Your task to perform on an android device: Open Chrome and go to settings Image 0: 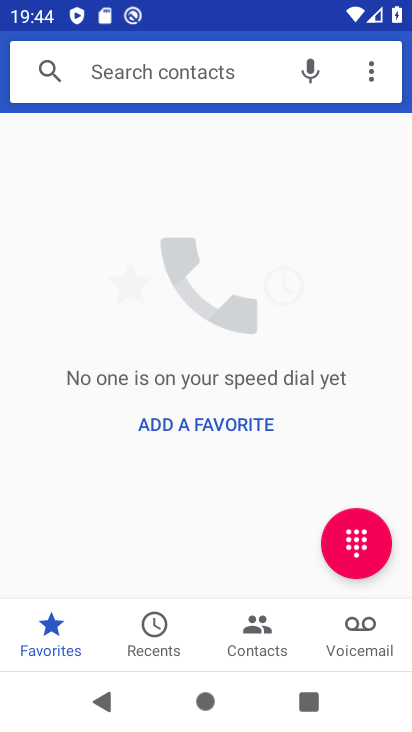
Step 0: press home button
Your task to perform on an android device: Open Chrome and go to settings Image 1: 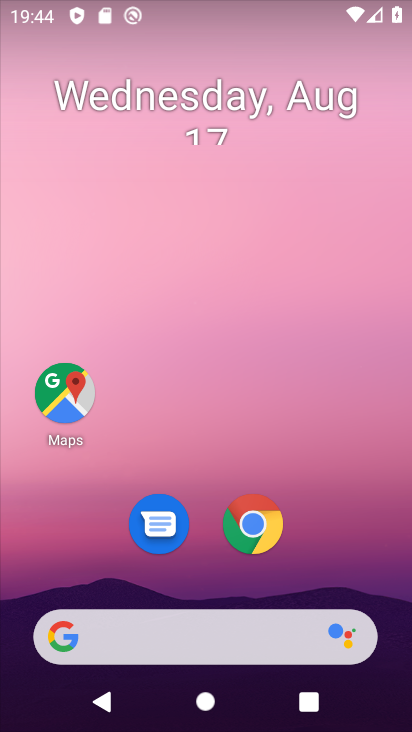
Step 1: click (251, 519)
Your task to perform on an android device: Open Chrome and go to settings Image 2: 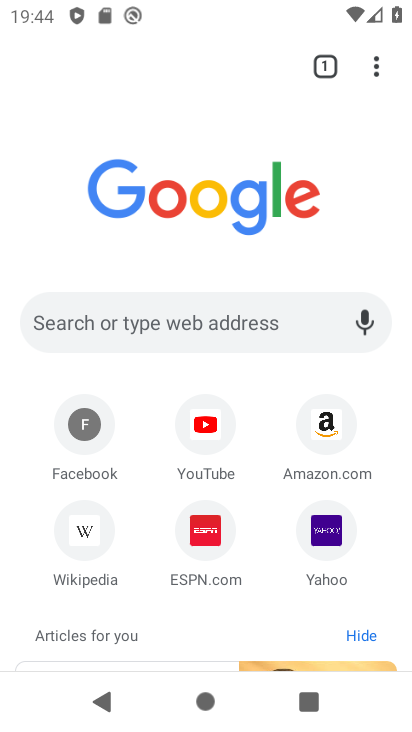
Step 2: click (372, 68)
Your task to perform on an android device: Open Chrome and go to settings Image 3: 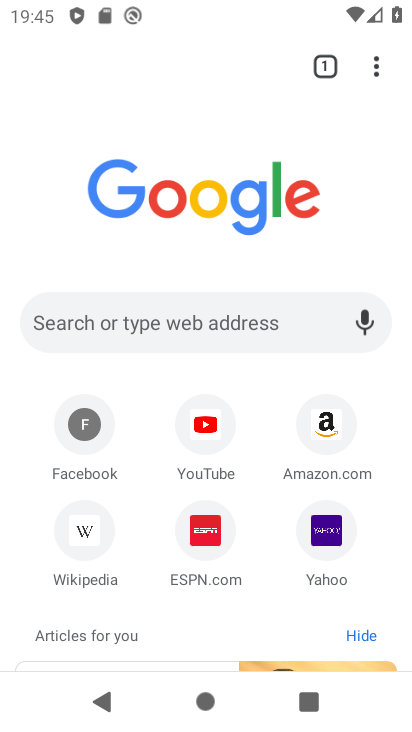
Step 3: click (375, 66)
Your task to perform on an android device: Open Chrome and go to settings Image 4: 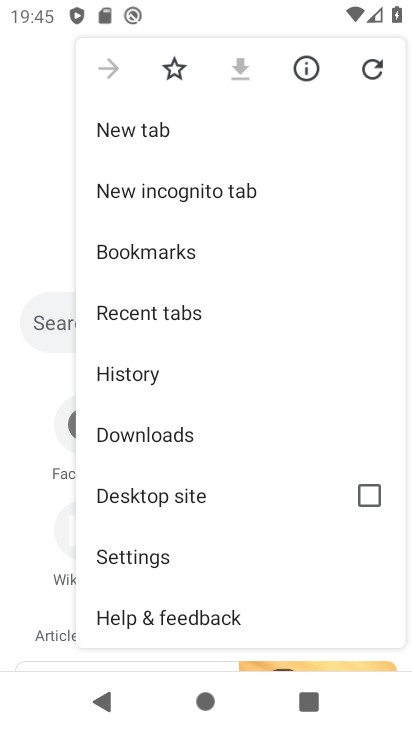
Step 4: click (184, 550)
Your task to perform on an android device: Open Chrome and go to settings Image 5: 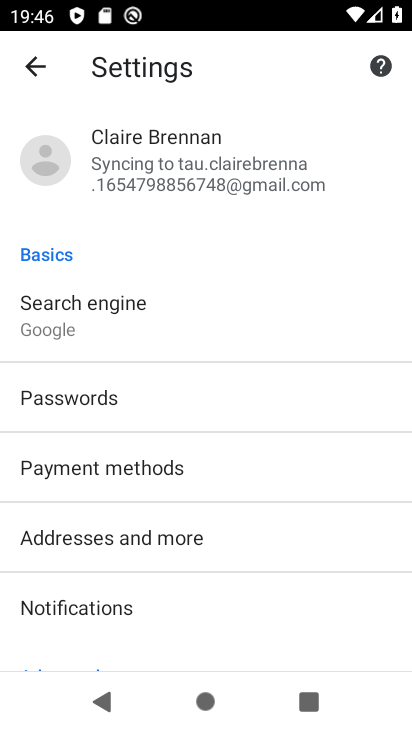
Step 5: task complete